Your task to perform on an android device: see creations saved in the google photos Image 0: 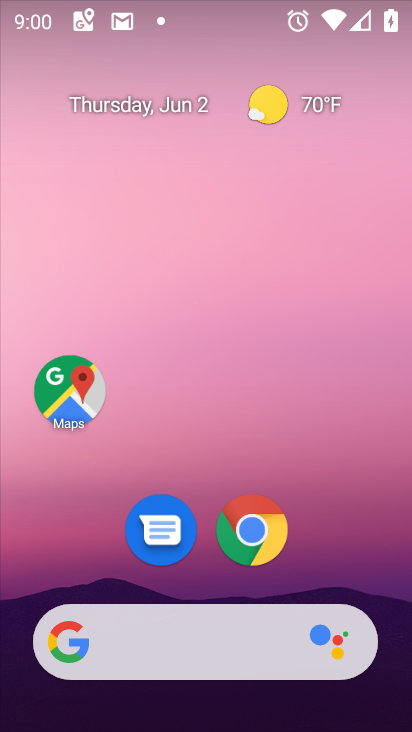
Step 0: drag from (172, 598) to (200, 279)
Your task to perform on an android device: see creations saved in the google photos Image 1: 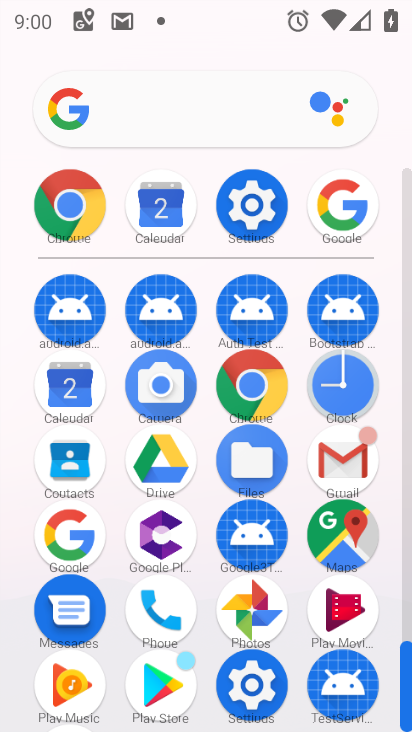
Step 1: click (242, 603)
Your task to perform on an android device: see creations saved in the google photos Image 2: 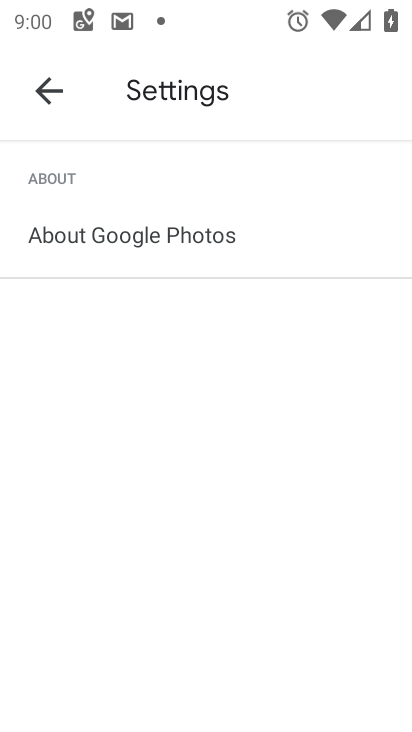
Step 2: click (43, 98)
Your task to perform on an android device: see creations saved in the google photos Image 3: 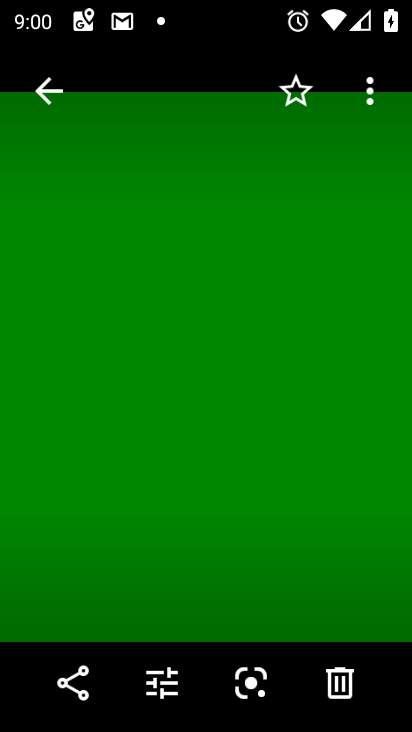
Step 3: click (43, 98)
Your task to perform on an android device: see creations saved in the google photos Image 4: 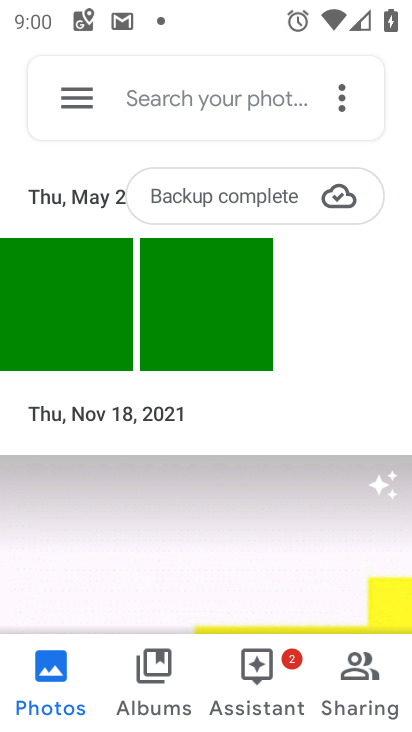
Step 4: click (261, 674)
Your task to perform on an android device: see creations saved in the google photos Image 5: 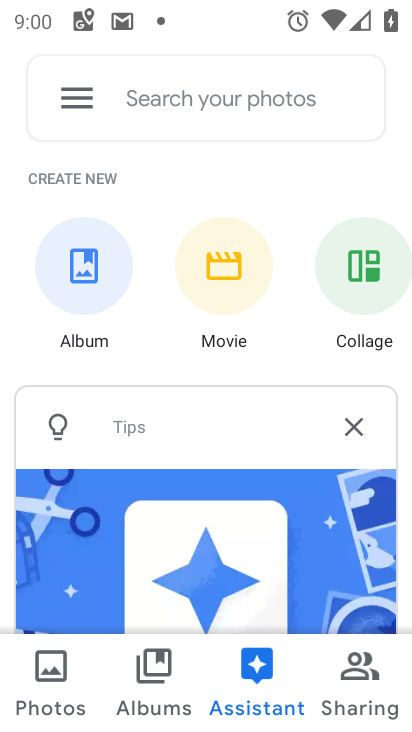
Step 5: click (161, 672)
Your task to perform on an android device: see creations saved in the google photos Image 6: 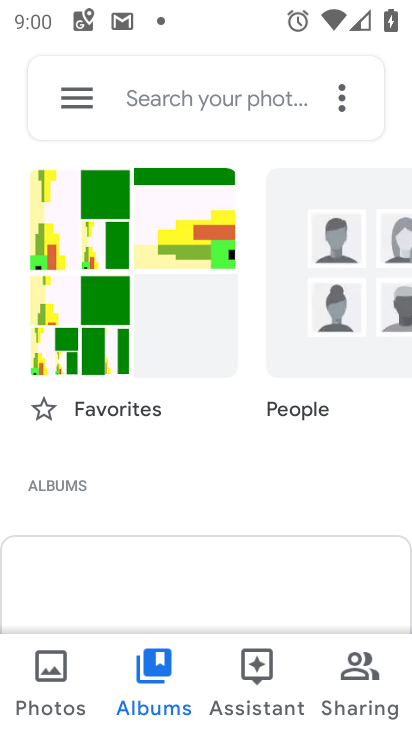
Step 6: task complete